Your task to perform on an android device: What's on my calendar today? Image 0: 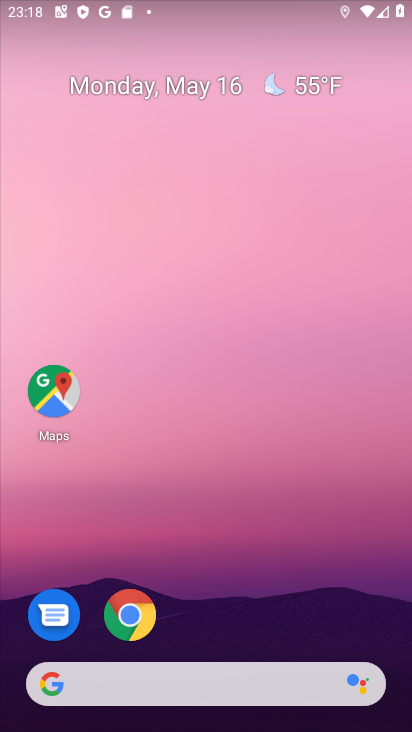
Step 0: drag from (211, 645) to (181, 288)
Your task to perform on an android device: What's on my calendar today? Image 1: 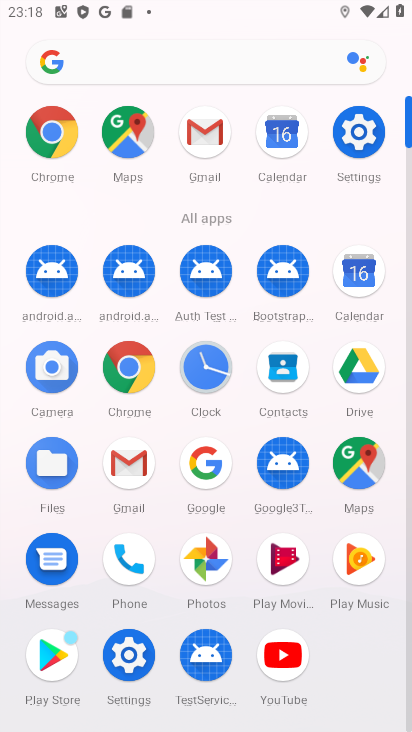
Step 1: click (367, 287)
Your task to perform on an android device: What's on my calendar today? Image 2: 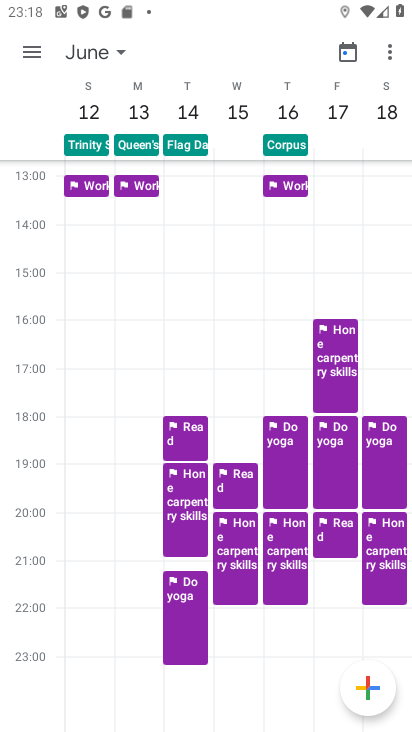
Step 2: click (339, 54)
Your task to perform on an android device: What's on my calendar today? Image 3: 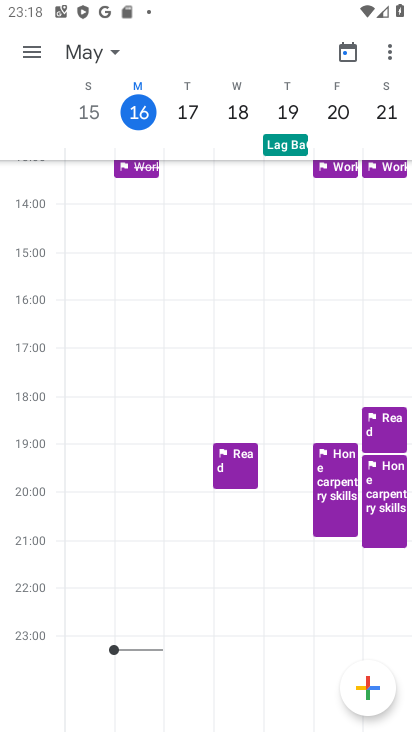
Step 3: click (137, 107)
Your task to perform on an android device: What's on my calendar today? Image 4: 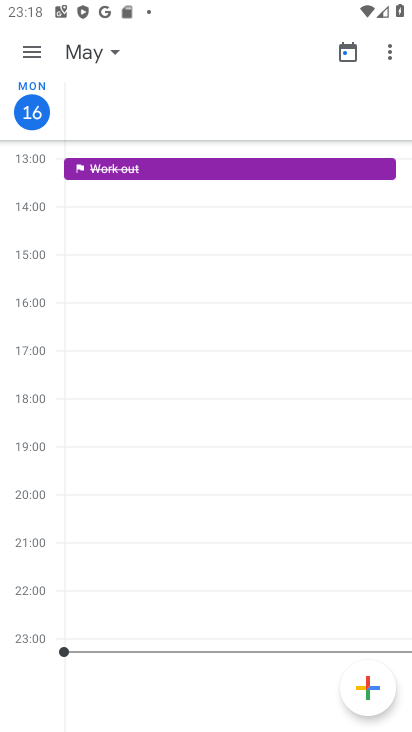
Step 4: task complete